Your task to perform on an android device: What is the news today? Image 0: 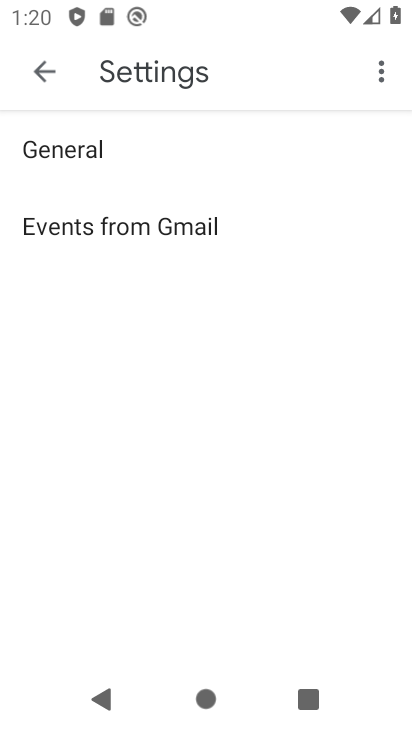
Step 0: press home button
Your task to perform on an android device: What is the news today? Image 1: 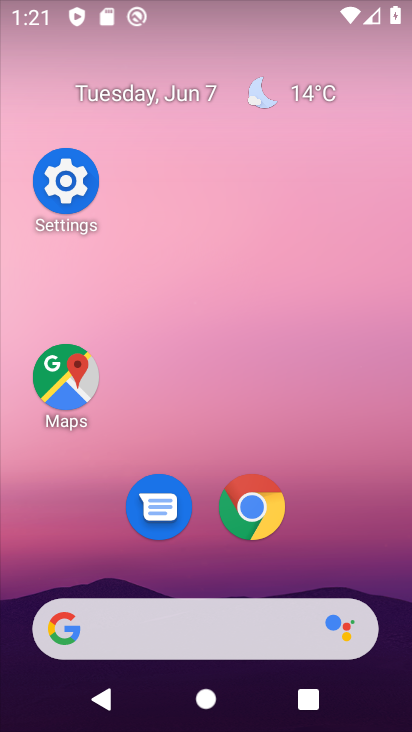
Step 1: drag from (333, 512) to (362, 65)
Your task to perform on an android device: What is the news today? Image 2: 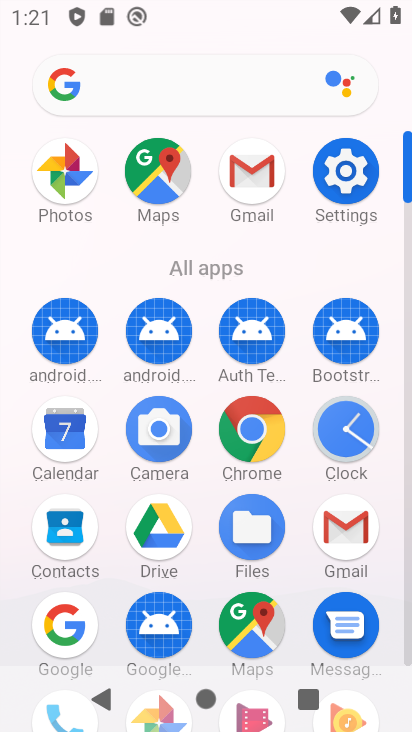
Step 2: drag from (75, 615) to (161, 374)
Your task to perform on an android device: What is the news today? Image 3: 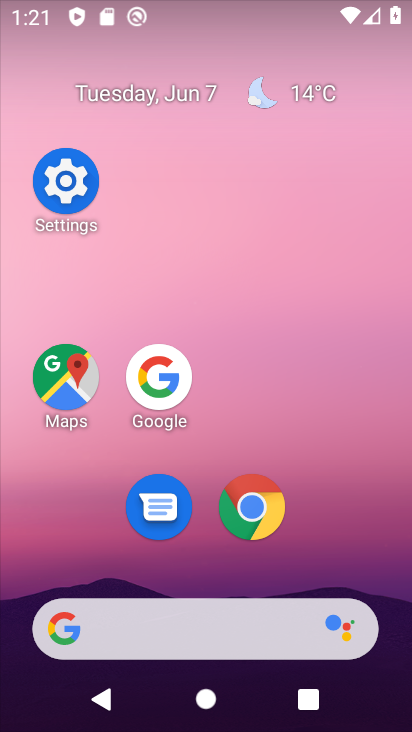
Step 3: click (174, 361)
Your task to perform on an android device: What is the news today? Image 4: 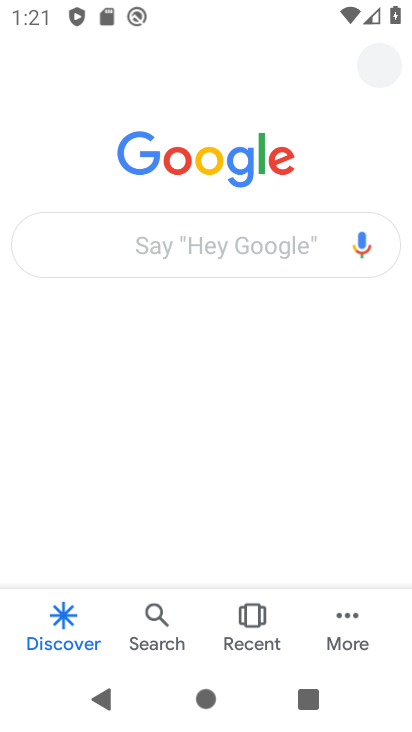
Step 4: click (160, 239)
Your task to perform on an android device: What is the news today? Image 5: 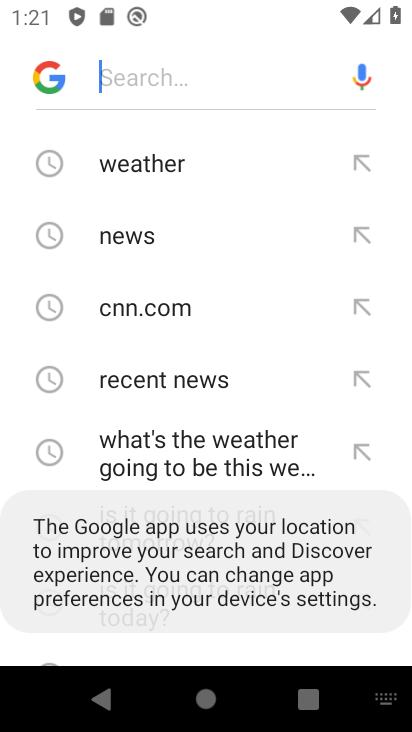
Step 5: click (156, 243)
Your task to perform on an android device: What is the news today? Image 6: 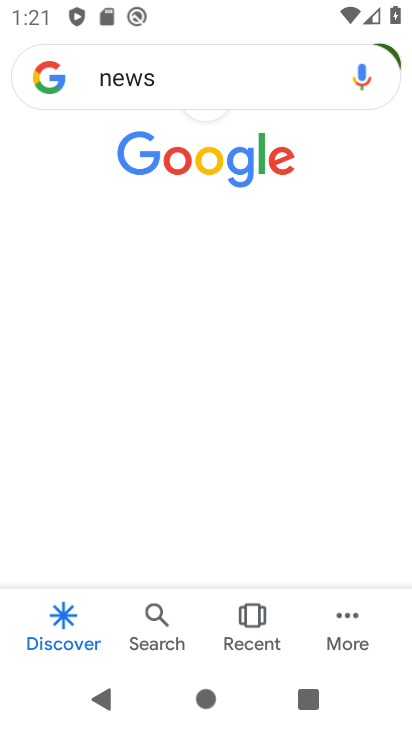
Step 6: task complete